Your task to perform on an android device: Check the weather Image 0: 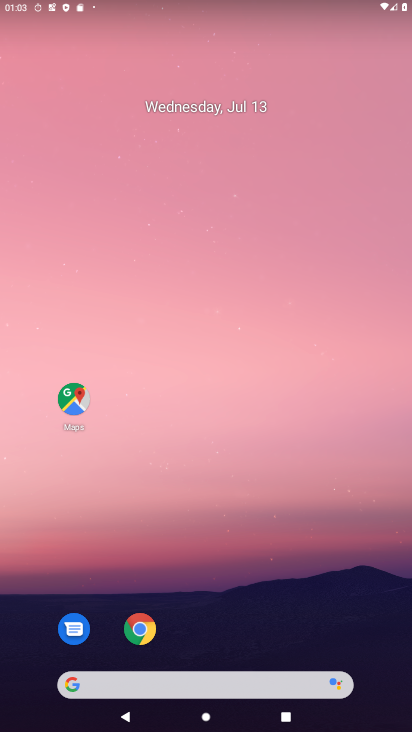
Step 0: drag from (197, 633) to (159, 192)
Your task to perform on an android device: Check the weather Image 1: 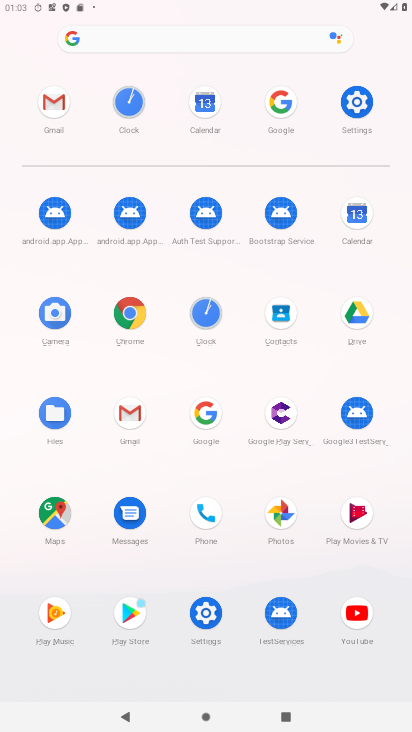
Step 1: click (218, 410)
Your task to perform on an android device: Check the weather Image 2: 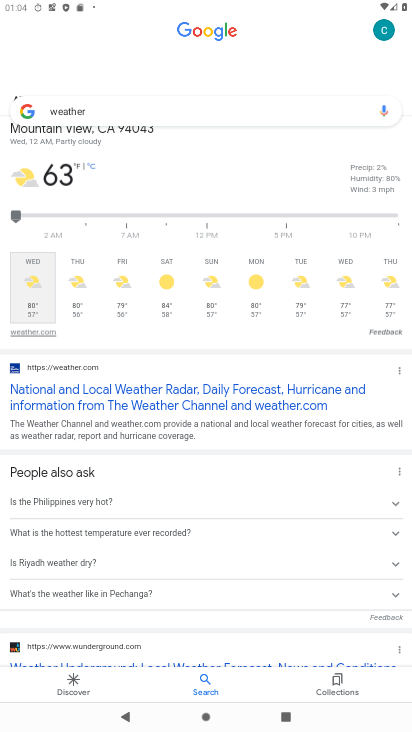
Step 2: task complete